Your task to perform on an android device: Open Amazon Image 0: 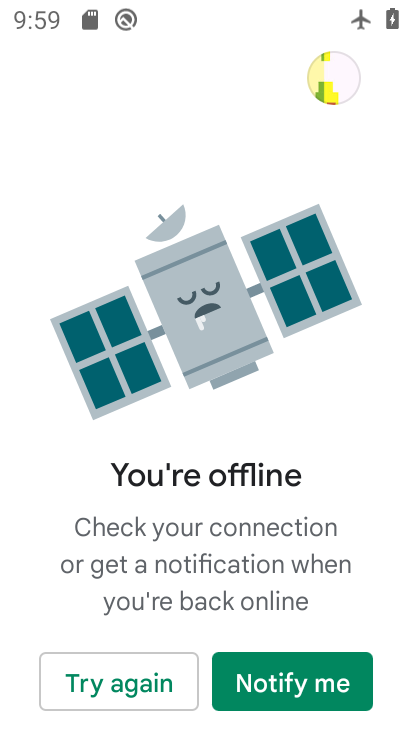
Step 0: press home button
Your task to perform on an android device: Open Amazon Image 1: 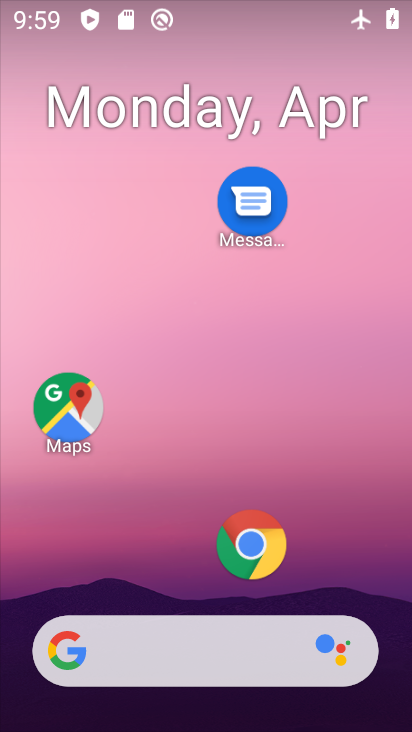
Step 1: drag from (211, 591) to (226, 87)
Your task to perform on an android device: Open Amazon Image 2: 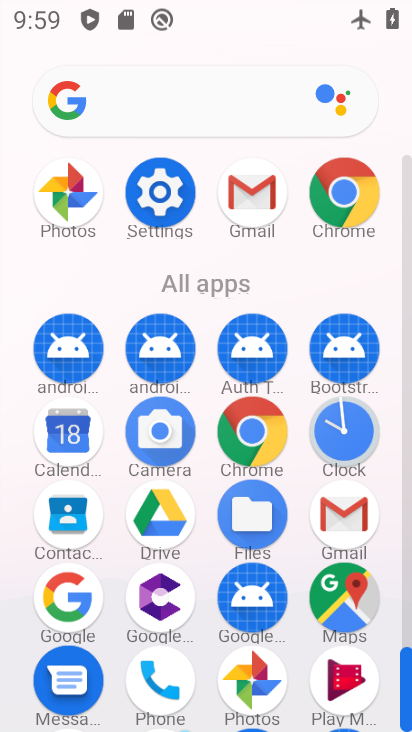
Step 2: drag from (204, 559) to (207, 136)
Your task to perform on an android device: Open Amazon Image 3: 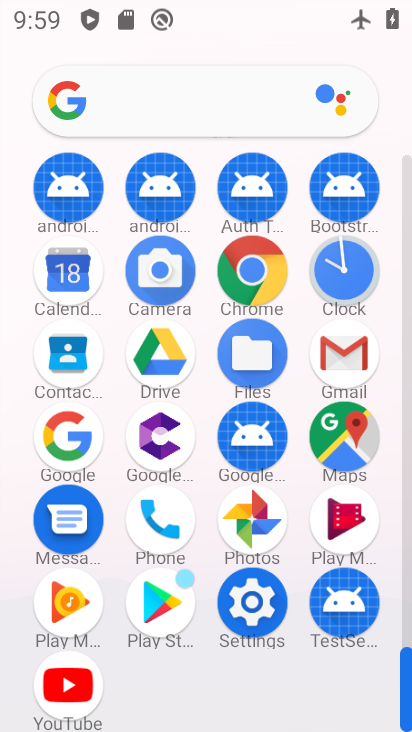
Step 3: click (247, 261)
Your task to perform on an android device: Open Amazon Image 4: 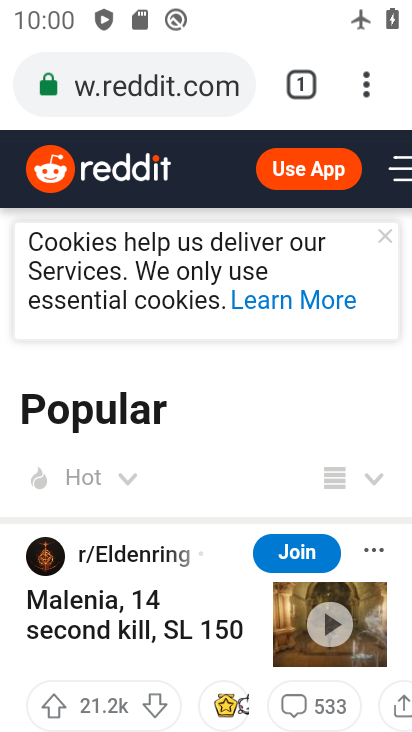
Step 4: click (303, 79)
Your task to perform on an android device: Open Amazon Image 5: 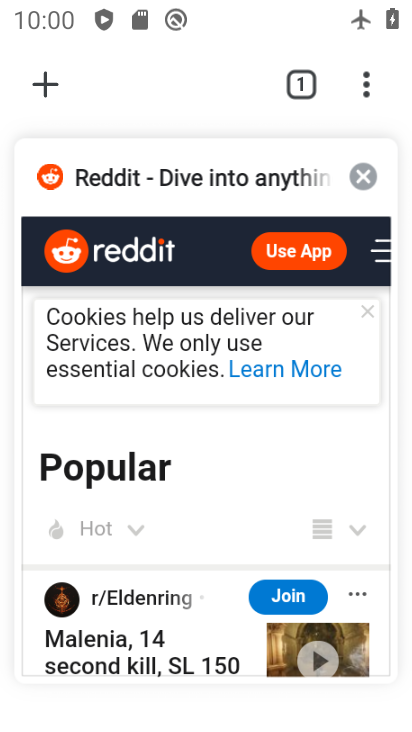
Step 5: click (361, 172)
Your task to perform on an android device: Open Amazon Image 6: 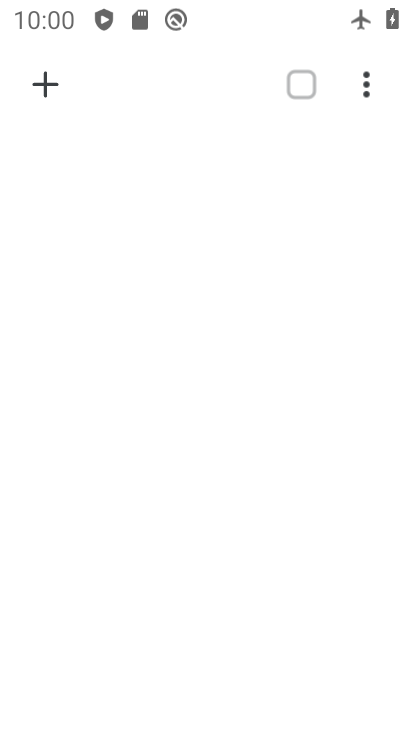
Step 6: click (53, 87)
Your task to perform on an android device: Open Amazon Image 7: 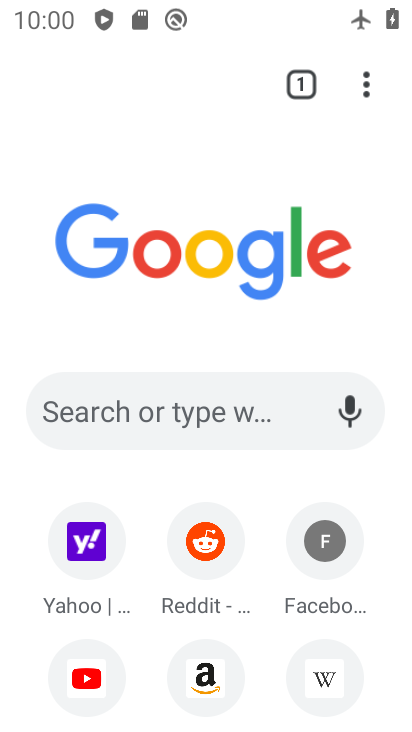
Step 7: click (203, 673)
Your task to perform on an android device: Open Amazon Image 8: 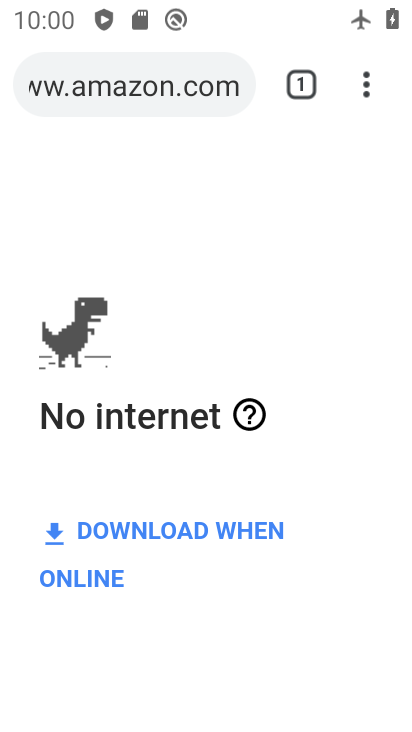
Step 8: task complete